Your task to perform on an android device: set an alarm Image 0: 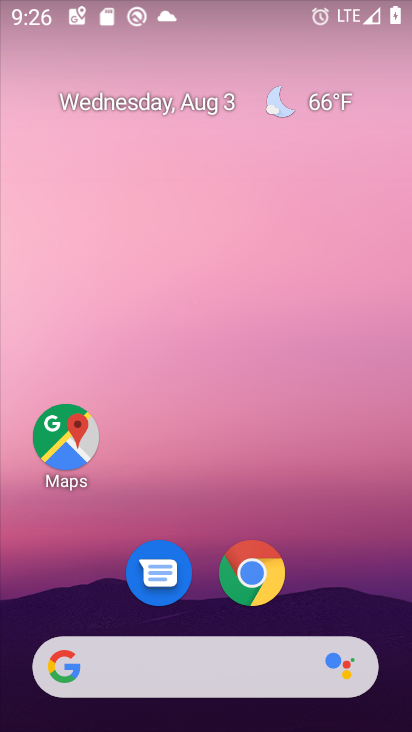
Step 0: drag from (329, 620) to (305, 10)
Your task to perform on an android device: set an alarm Image 1: 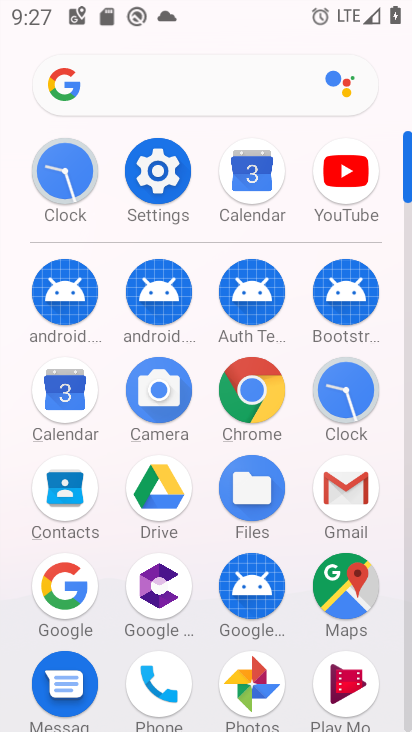
Step 1: click (60, 174)
Your task to perform on an android device: set an alarm Image 2: 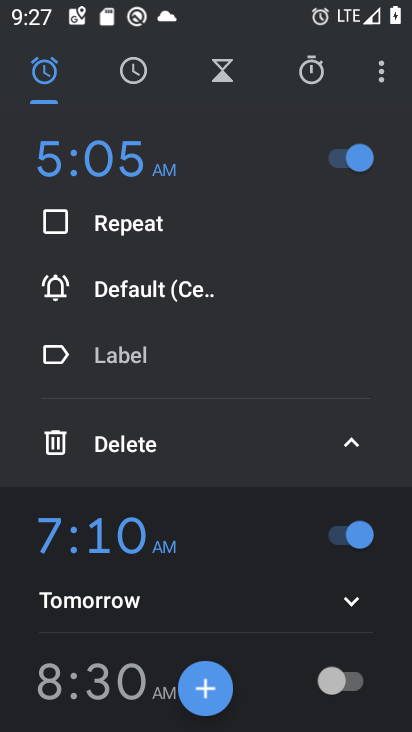
Step 2: click (208, 695)
Your task to perform on an android device: set an alarm Image 3: 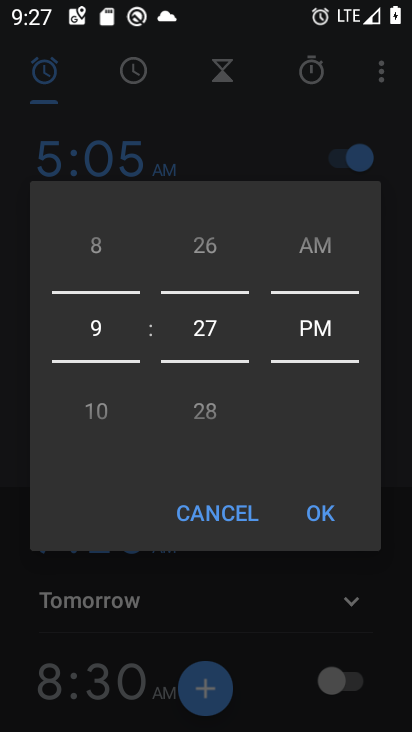
Step 3: task complete